Your task to perform on an android device: turn off priority inbox in the gmail app Image 0: 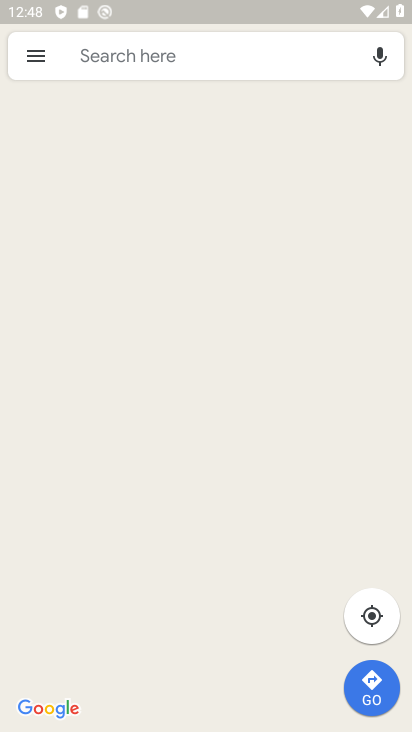
Step 0: click (128, 616)
Your task to perform on an android device: turn off priority inbox in the gmail app Image 1: 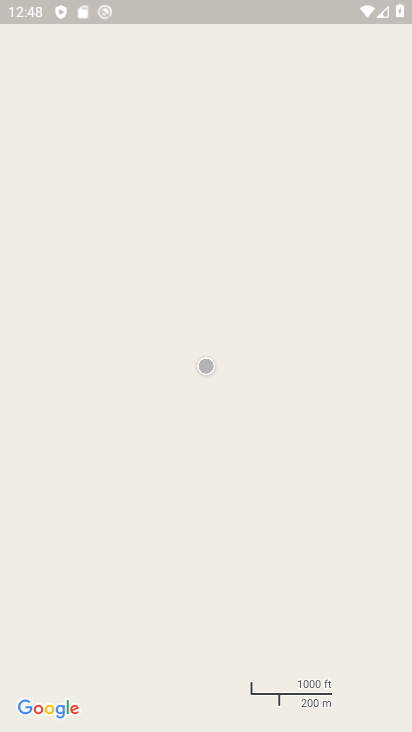
Step 1: press home button
Your task to perform on an android device: turn off priority inbox in the gmail app Image 2: 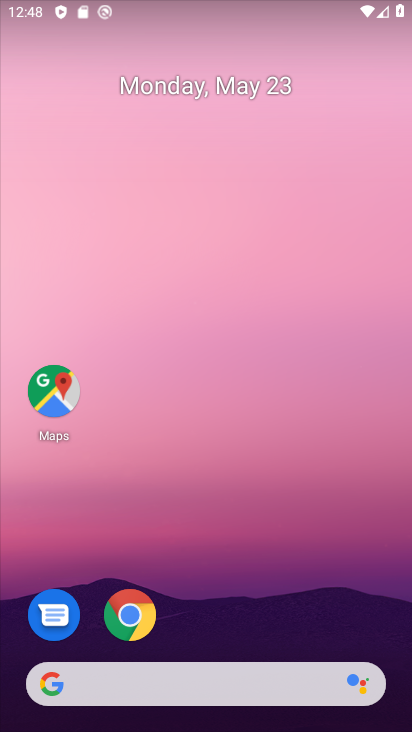
Step 2: drag from (204, 728) to (213, 135)
Your task to perform on an android device: turn off priority inbox in the gmail app Image 3: 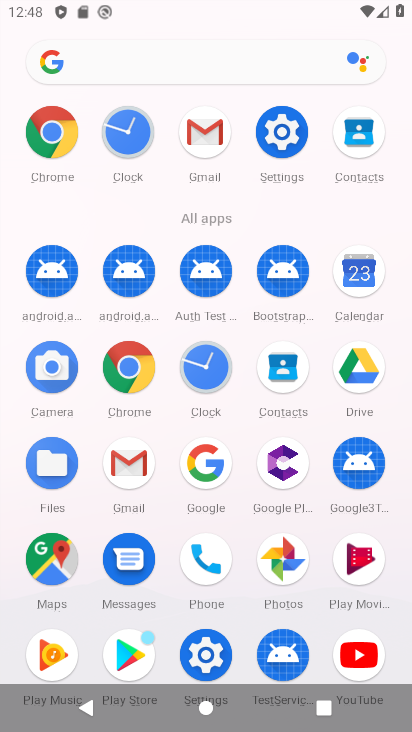
Step 3: click (141, 471)
Your task to perform on an android device: turn off priority inbox in the gmail app Image 4: 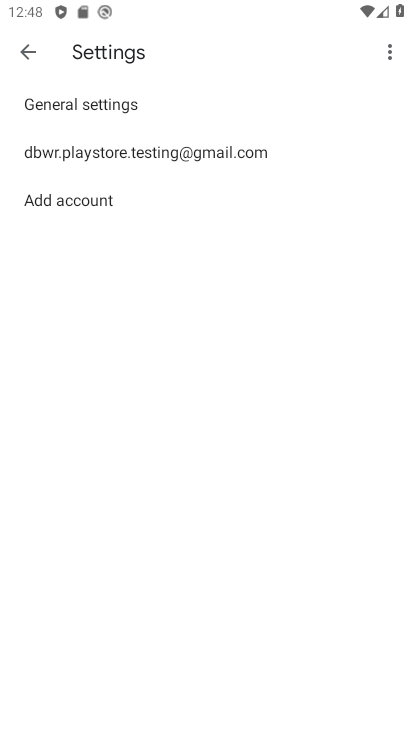
Step 4: click (104, 153)
Your task to perform on an android device: turn off priority inbox in the gmail app Image 5: 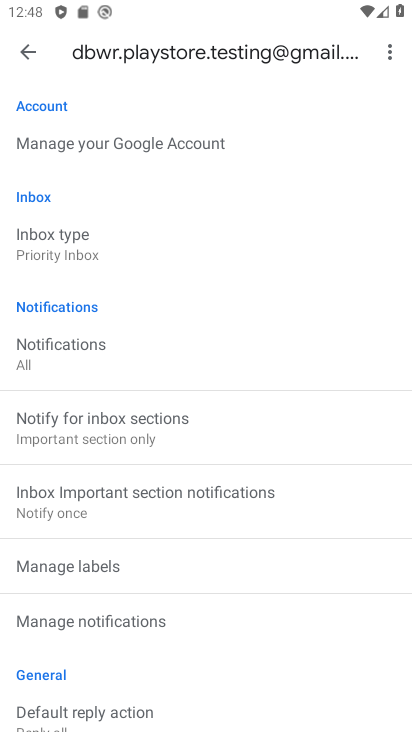
Step 5: click (65, 252)
Your task to perform on an android device: turn off priority inbox in the gmail app Image 6: 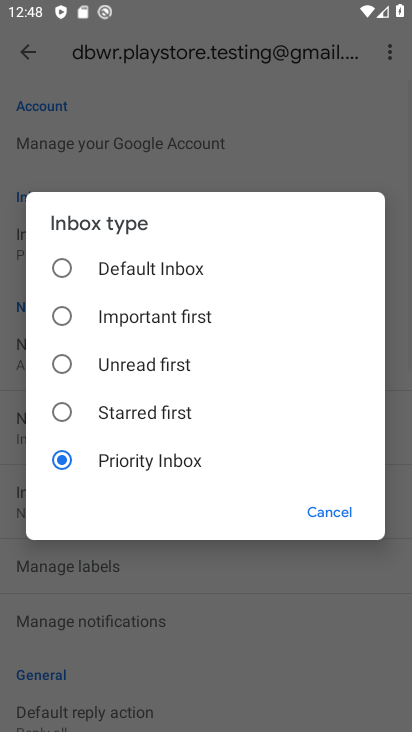
Step 6: click (57, 263)
Your task to perform on an android device: turn off priority inbox in the gmail app Image 7: 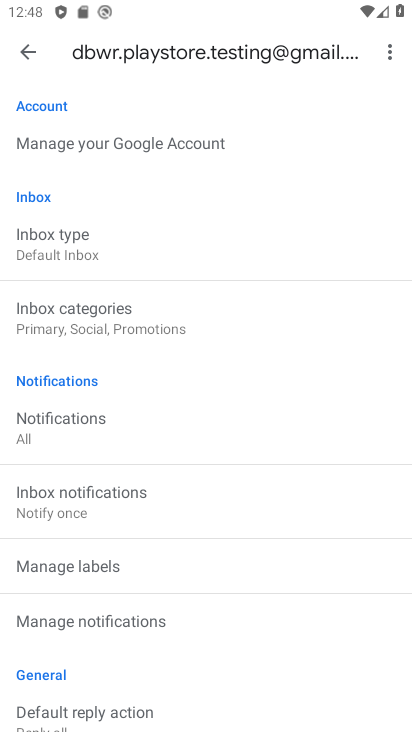
Step 7: task complete